Your task to perform on an android device: Open settings on Google Maps Image 0: 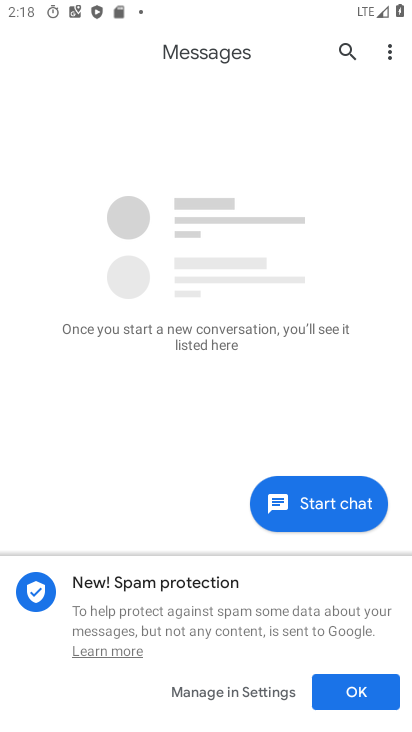
Step 0: press home button
Your task to perform on an android device: Open settings on Google Maps Image 1: 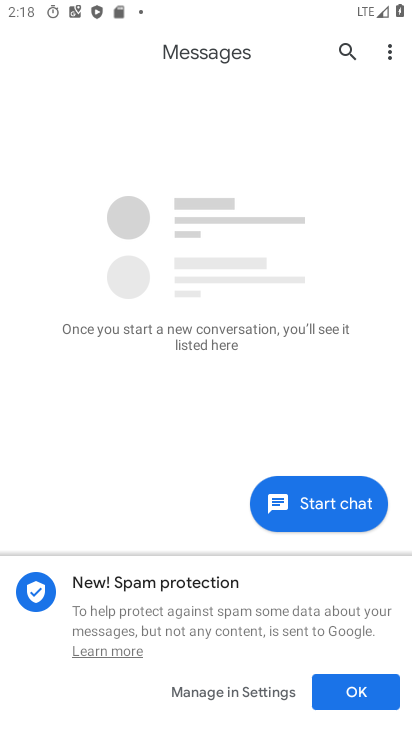
Step 1: drag from (154, 596) to (409, 678)
Your task to perform on an android device: Open settings on Google Maps Image 2: 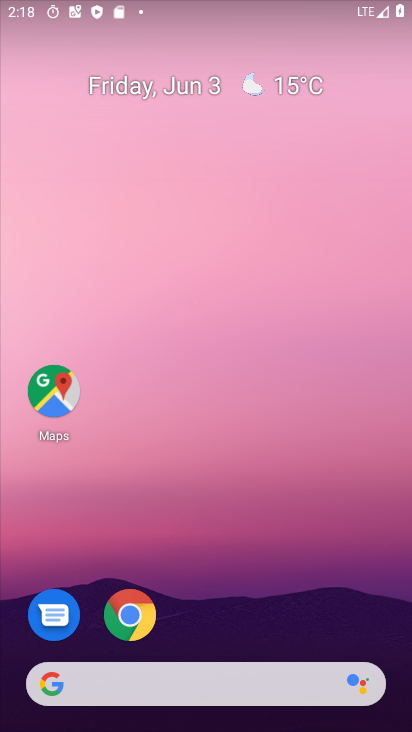
Step 2: click (50, 370)
Your task to perform on an android device: Open settings on Google Maps Image 3: 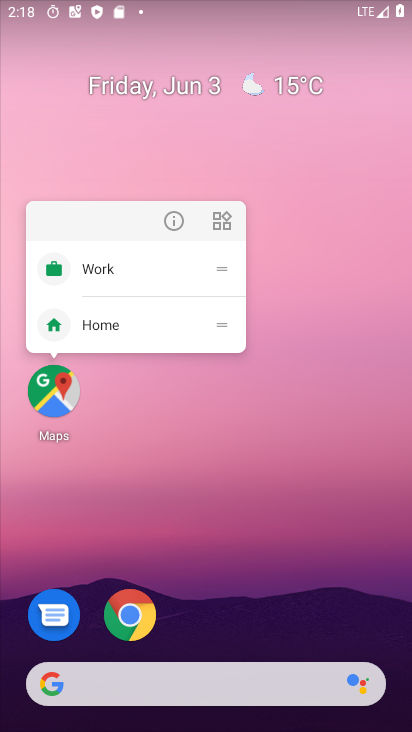
Step 3: click (180, 235)
Your task to perform on an android device: Open settings on Google Maps Image 4: 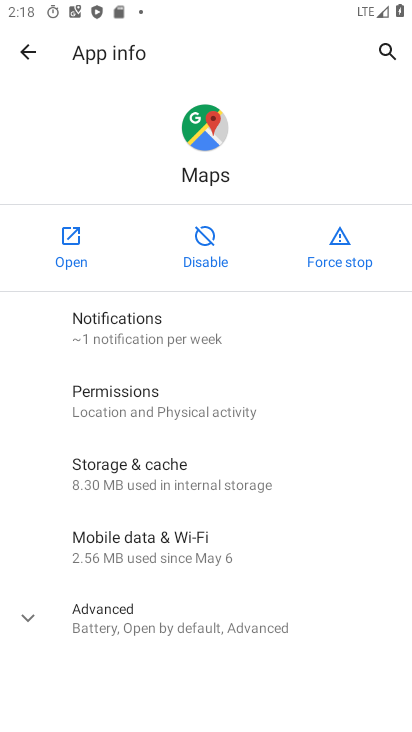
Step 4: click (66, 270)
Your task to perform on an android device: Open settings on Google Maps Image 5: 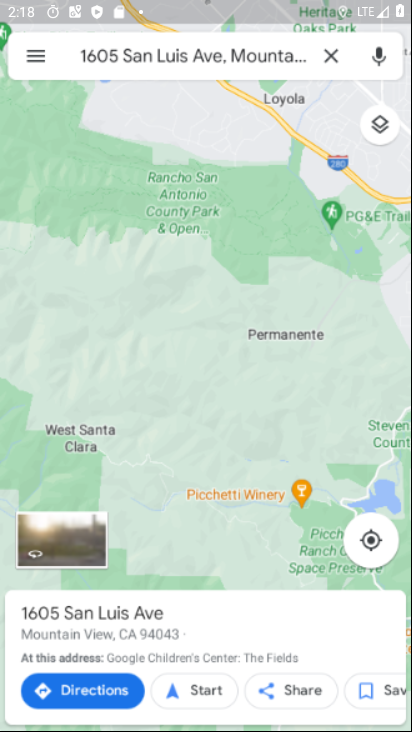
Step 5: drag from (254, 511) to (334, 173)
Your task to perform on an android device: Open settings on Google Maps Image 6: 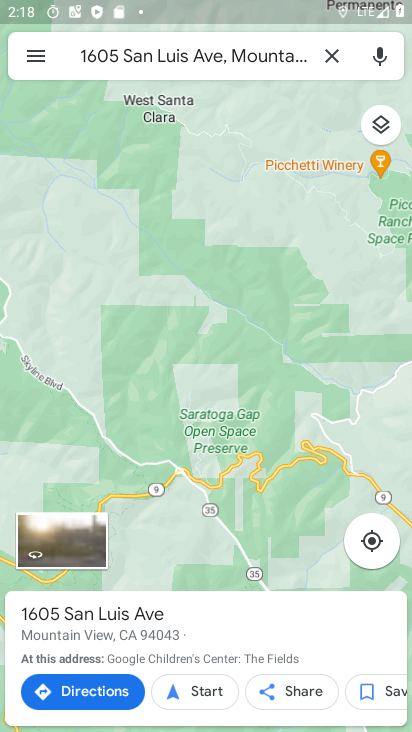
Step 6: click (40, 54)
Your task to perform on an android device: Open settings on Google Maps Image 7: 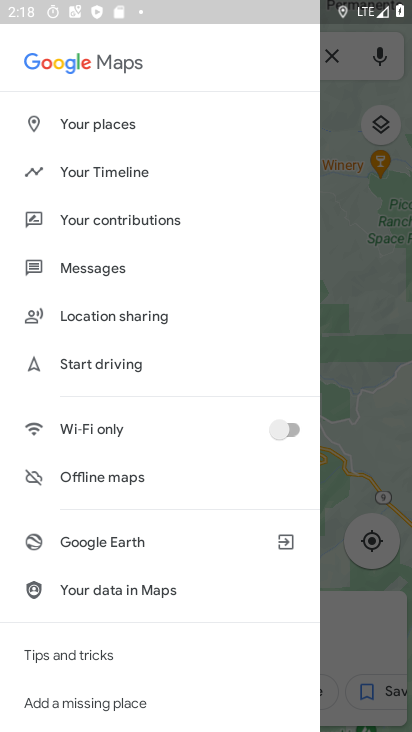
Step 7: drag from (104, 506) to (135, 39)
Your task to perform on an android device: Open settings on Google Maps Image 8: 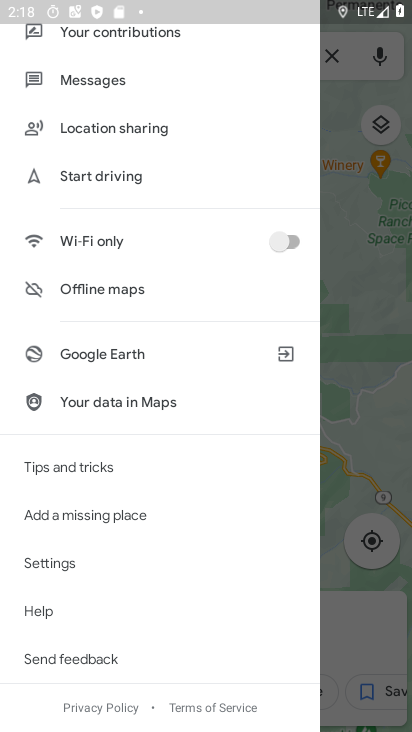
Step 8: click (71, 559)
Your task to perform on an android device: Open settings on Google Maps Image 9: 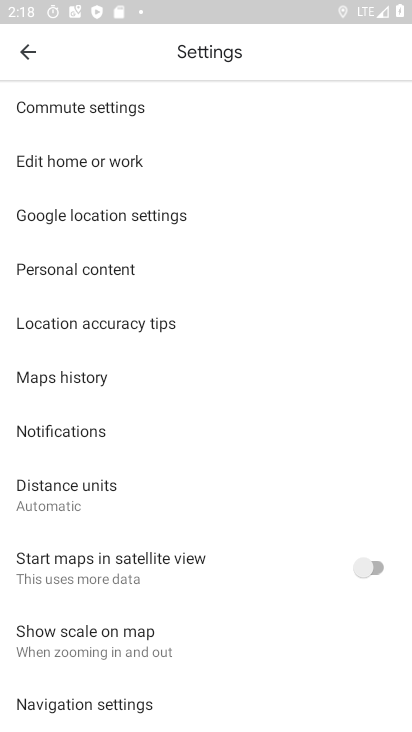
Step 9: task complete